Your task to perform on an android device: turn off location history Image 0: 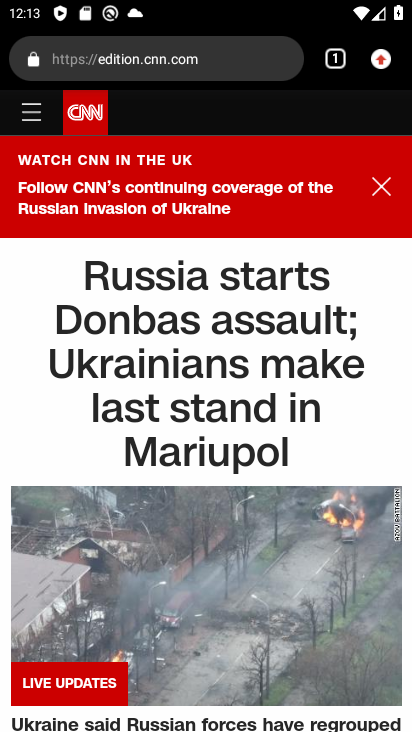
Step 0: press home button
Your task to perform on an android device: turn off location history Image 1: 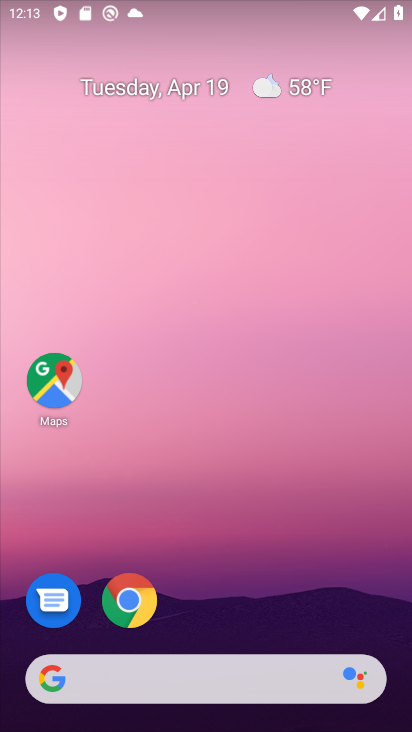
Step 1: drag from (250, 677) to (317, 307)
Your task to perform on an android device: turn off location history Image 2: 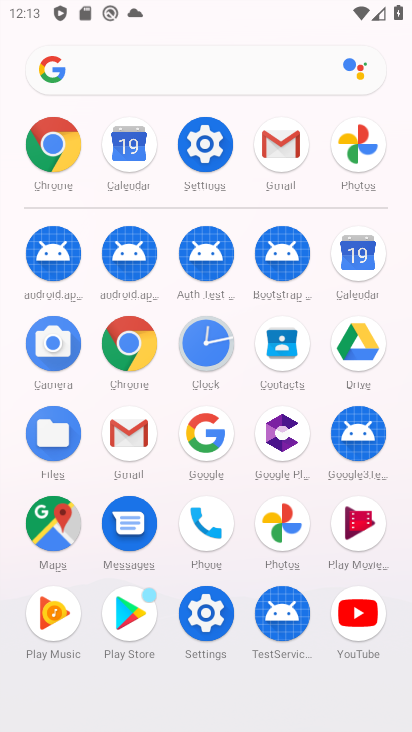
Step 2: click (204, 148)
Your task to perform on an android device: turn off location history Image 3: 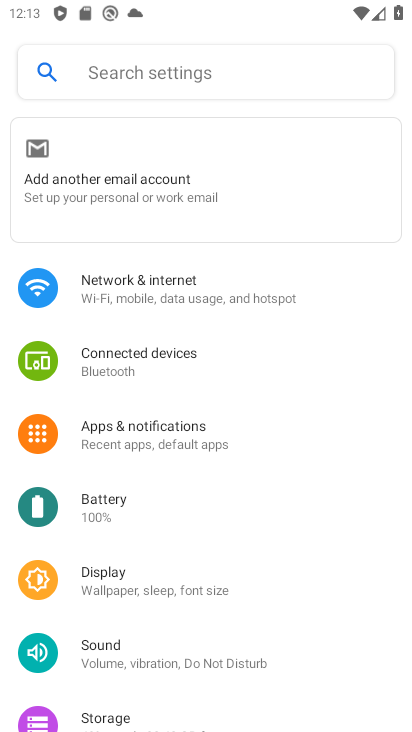
Step 3: click (207, 55)
Your task to perform on an android device: turn off location history Image 4: 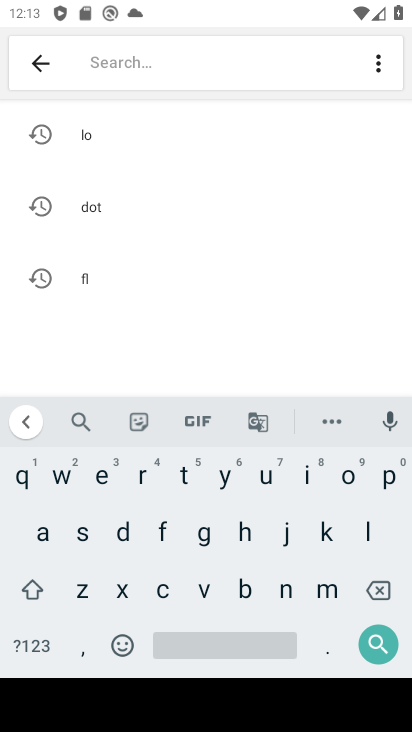
Step 4: click (156, 138)
Your task to perform on an android device: turn off location history Image 5: 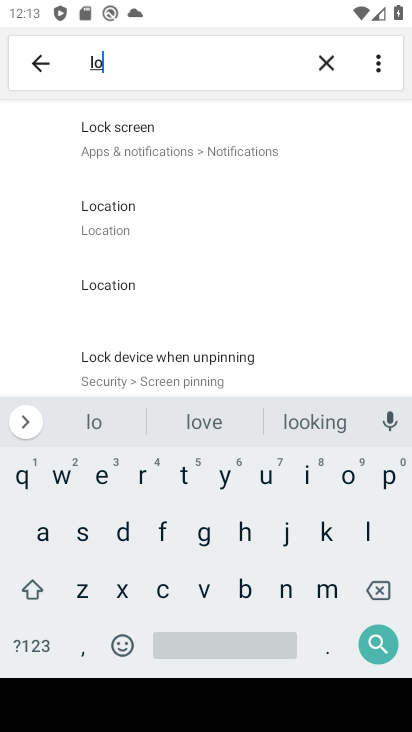
Step 5: click (156, 207)
Your task to perform on an android device: turn off location history Image 6: 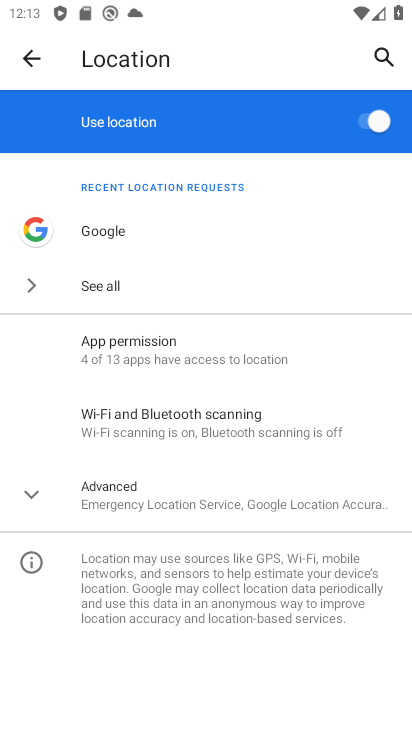
Step 6: click (64, 496)
Your task to perform on an android device: turn off location history Image 7: 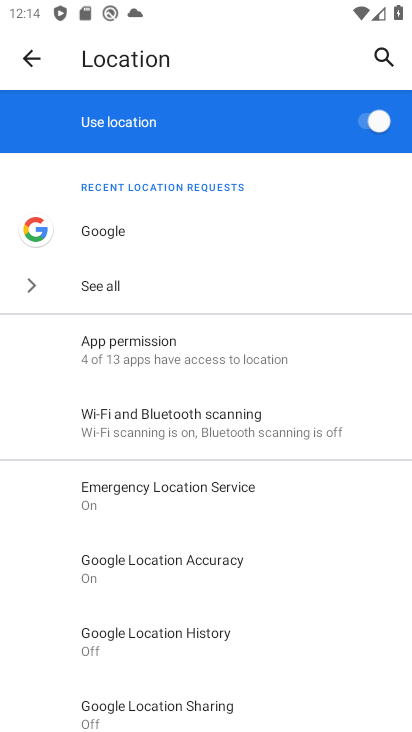
Step 7: drag from (193, 440) to (242, 240)
Your task to perform on an android device: turn off location history Image 8: 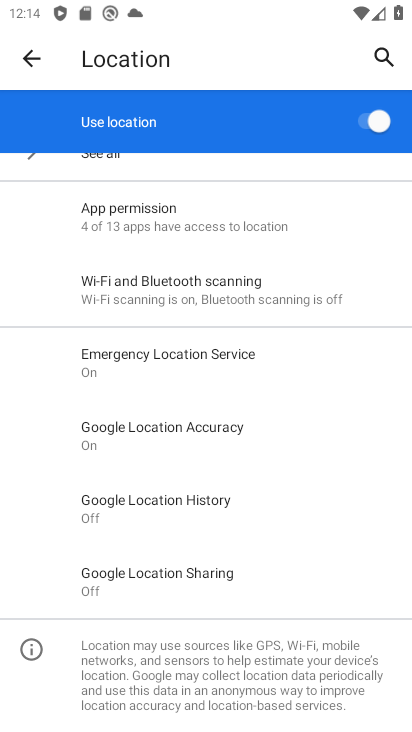
Step 8: click (370, 117)
Your task to perform on an android device: turn off location history Image 9: 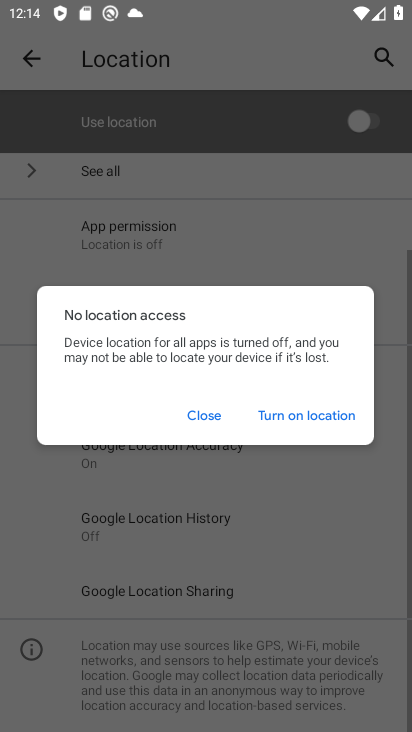
Step 9: task complete